Your task to perform on an android device: turn on priority inbox in the gmail app Image 0: 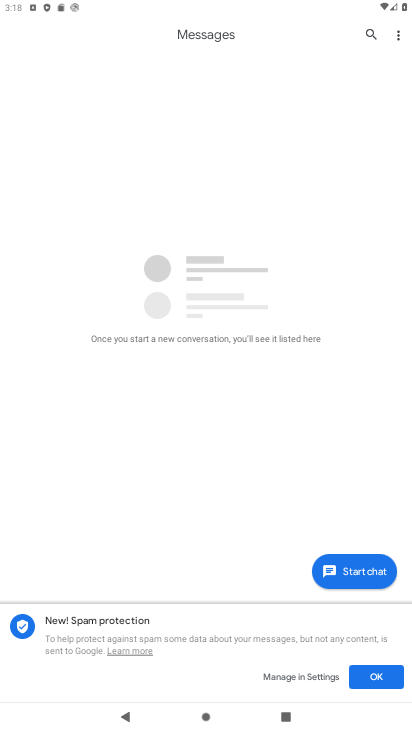
Step 0: press home button
Your task to perform on an android device: turn on priority inbox in the gmail app Image 1: 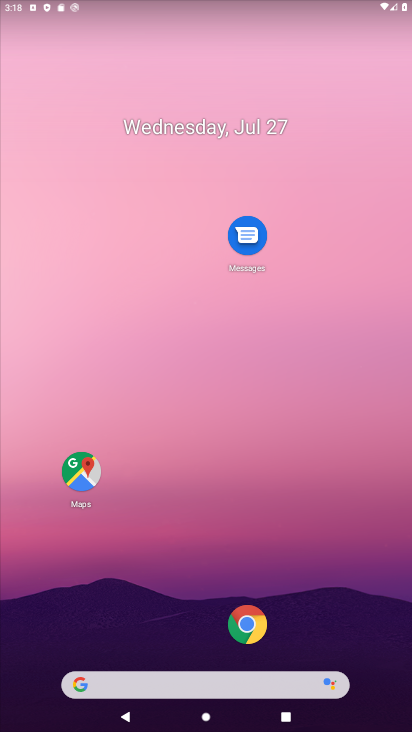
Step 1: drag from (127, 621) to (163, 164)
Your task to perform on an android device: turn on priority inbox in the gmail app Image 2: 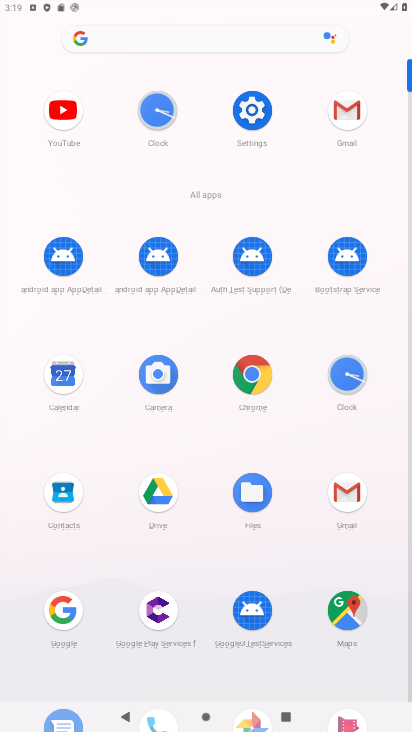
Step 2: click (356, 103)
Your task to perform on an android device: turn on priority inbox in the gmail app Image 3: 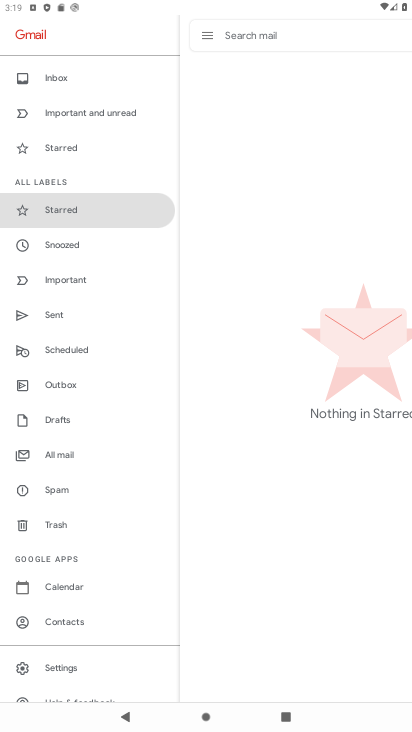
Step 3: click (55, 675)
Your task to perform on an android device: turn on priority inbox in the gmail app Image 4: 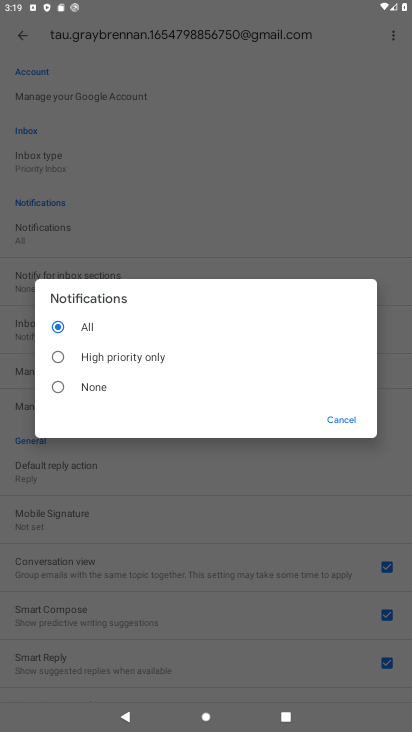
Step 4: click (101, 353)
Your task to perform on an android device: turn on priority inbox in the gmail app Image 5: 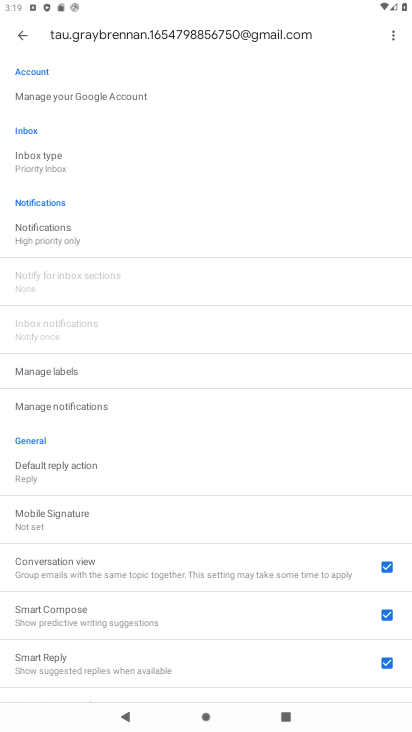
Step 5: task complete